Your task to perform on an android device: Open the phone app and click the voicemail tab. Image 0: 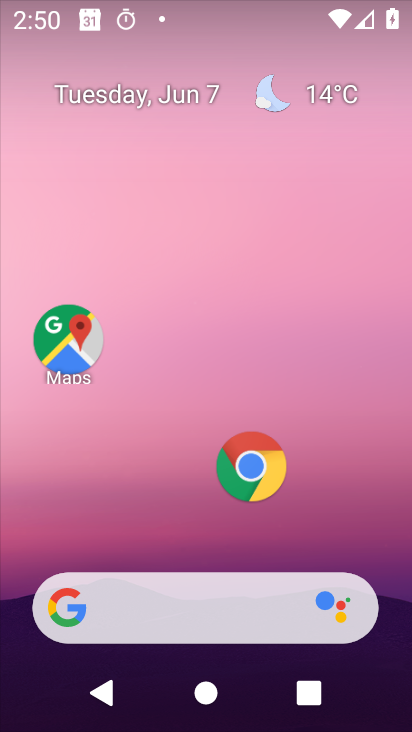
Step 0: drag from (144, 716) to (127, 297)
Your task to perform on an android device: Open the phone app and click the voicemail tab. Image 1: 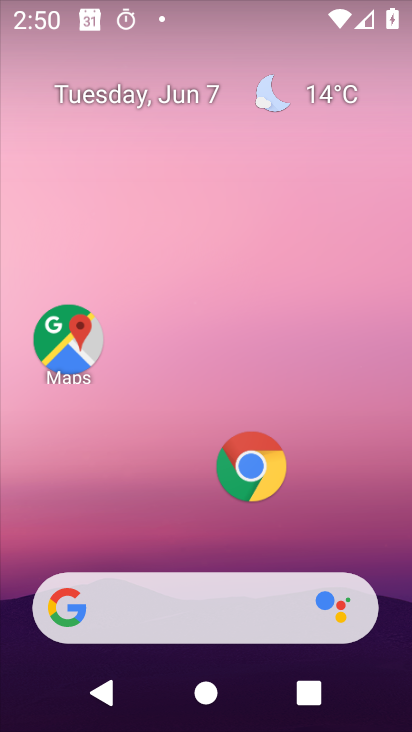
Step 1: drag from (168, 723) to (143, 116)
Your task to perform on an android device: Open the phone app and click the voicemail tab. Image 2: 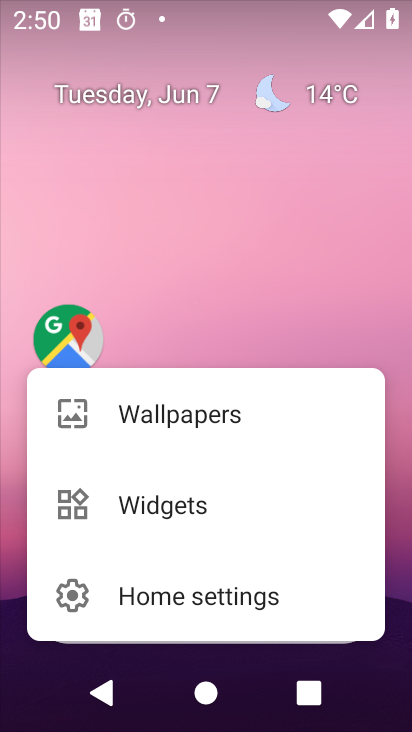
Step 2: press home button
Your task to perform on an android device: Open the phone app and click the voicemail tab. Image 3: 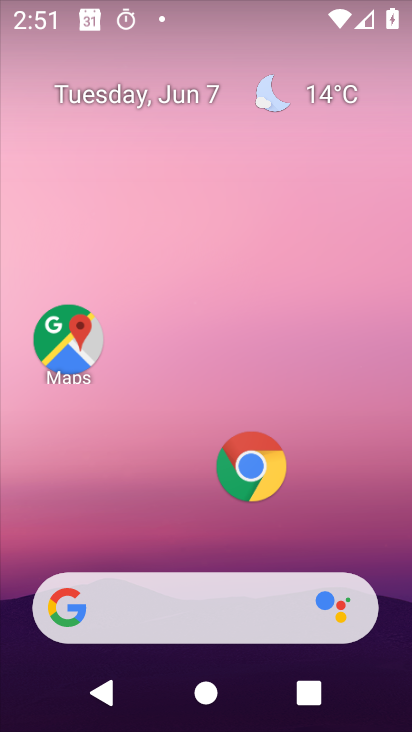
Step 3: drag from (160, 705) to (182, 140)
Your task to perform on an android device: Open the phone app and click the voicemail tab. Image 4: 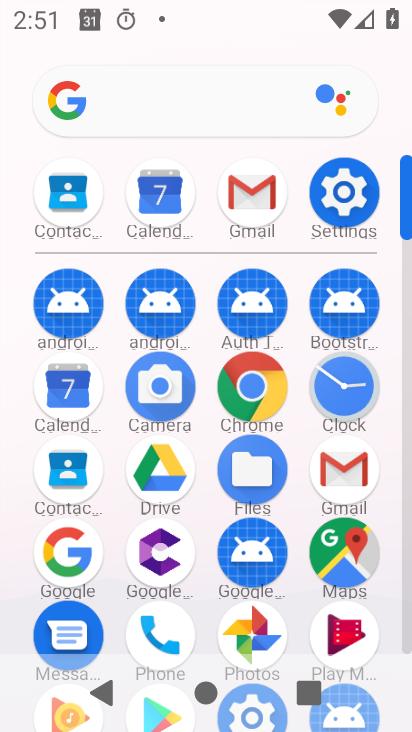
Step 4: click (154, 635)
Your task to perform on an android device: Open the phone app and click the voicemail tab. Image 5: 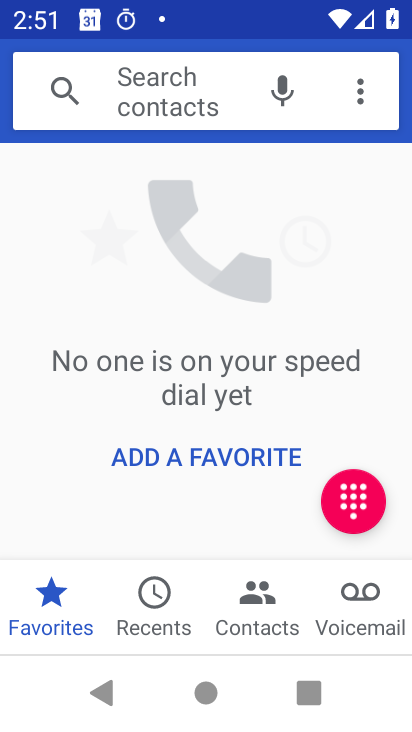
Step 5: click (367, 623)
Your task to perform on an android device: Open the phone app and click the voicemail tab. Image 6: 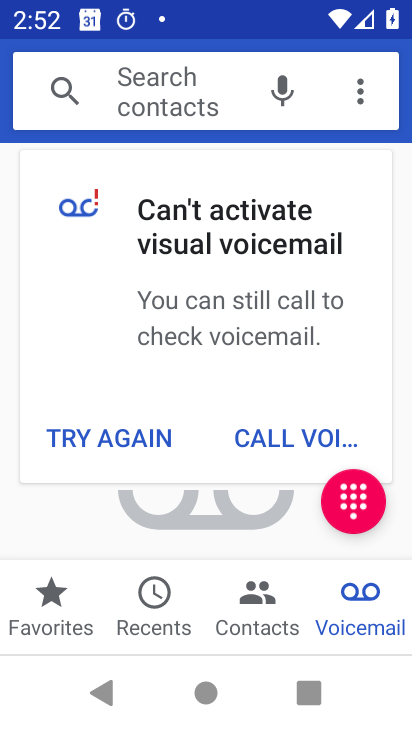
Step 6: task complete